Your task to perform on an android device: turn off location Image 0: 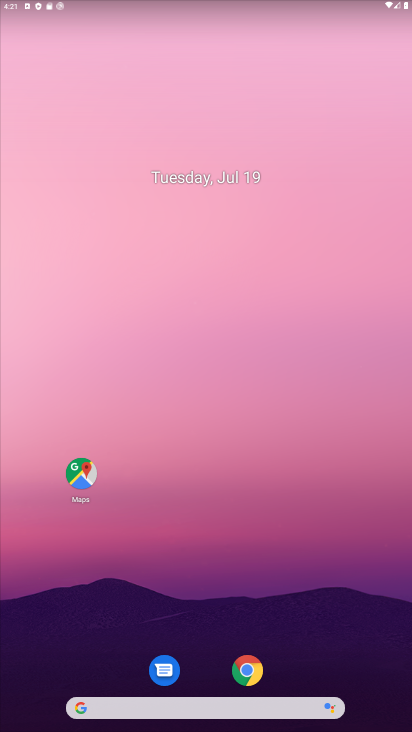
Step 0: drag from (292, 704) to (319, 121)
Your task to perform on an android device: turn off location Image 1: 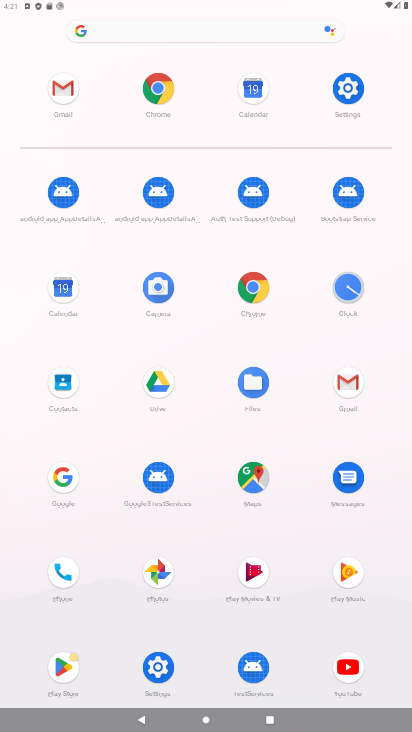
Step 1: click (351, 88)
Your task to perform on an android device: turn off location Image 2: 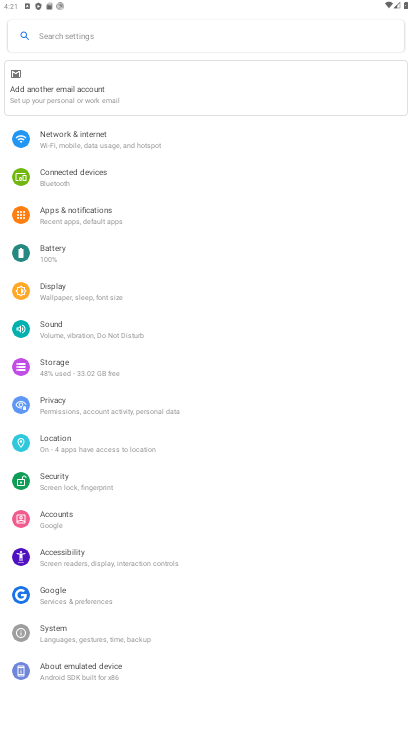
Step 2: click (56, 446)
Your task to perform on an android device: turn off location Image 3: 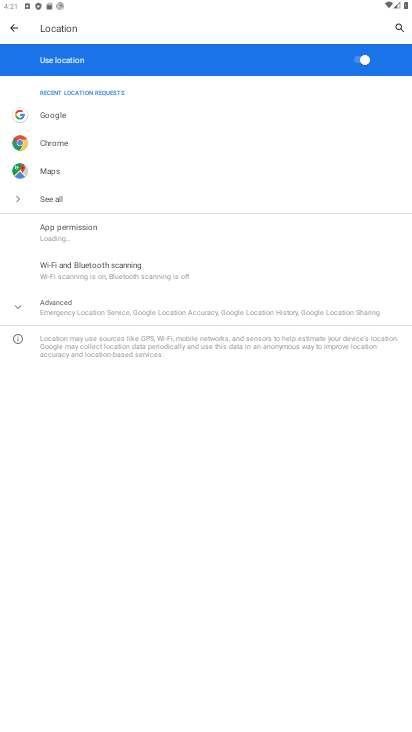
Step 3: click (354, 58)
Your task to perform on an android device: turn off location Image 4: 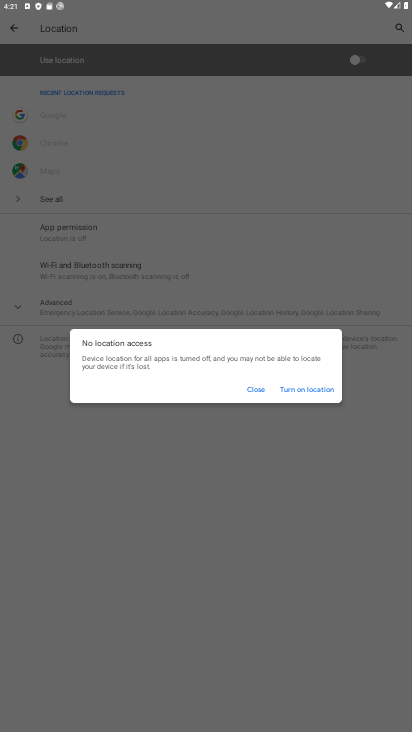
Step 4: click (258, 386)
Your task to perform on an android device: turn off location Image 5: 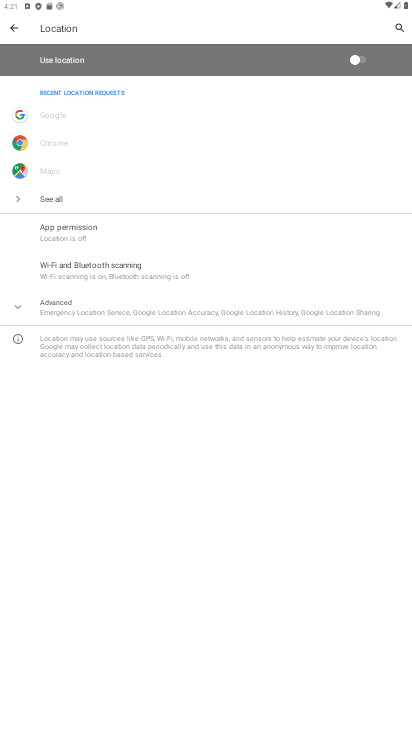
Step 5: task complete